Your task to perform on an android device: toggle improve location accuracy Image 0: 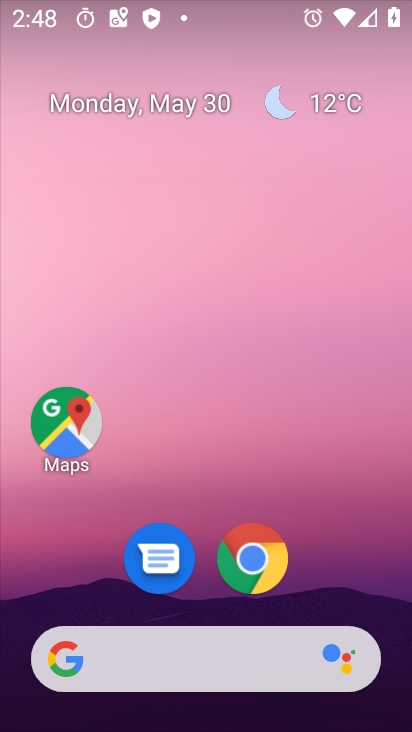
Step 0: drag from (204, 618) to (191, 162)
Your task to perform on an android device: toggle improve location accuracy Image 1: 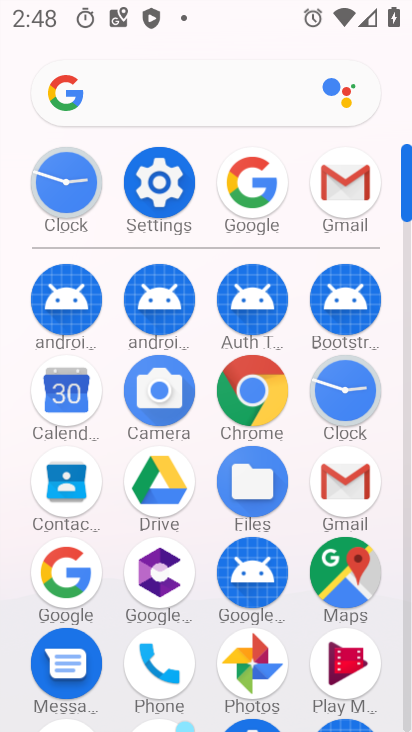
Step 1: click (149, 195)
Your task to perform on an android device: toggle improve location accuracy Image 2: 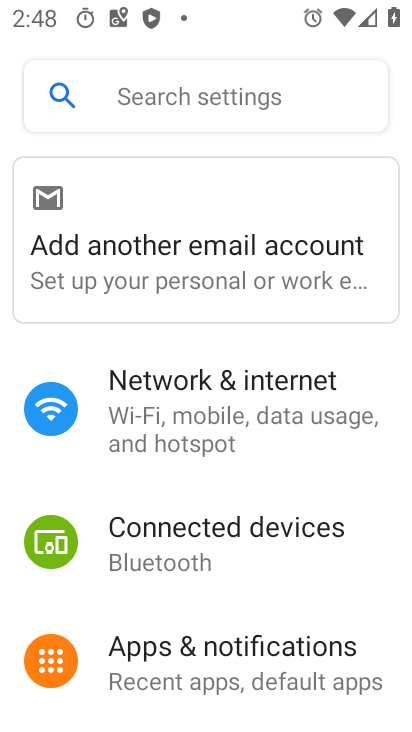
Step 2: drag from (180, 655) to (258, 189)
Your task to perform on an android device: toggle improve location accuracy Image 3: 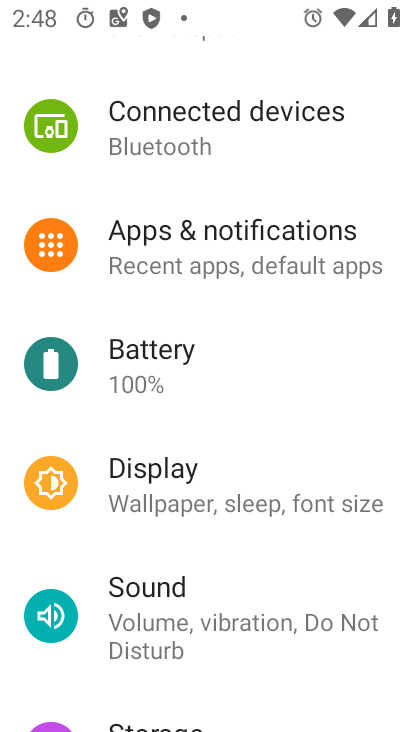
Step 3: drag from (186, 622) to (274, 133)
Your task to perform on an android device: toggle improve location accuracy Image 4: 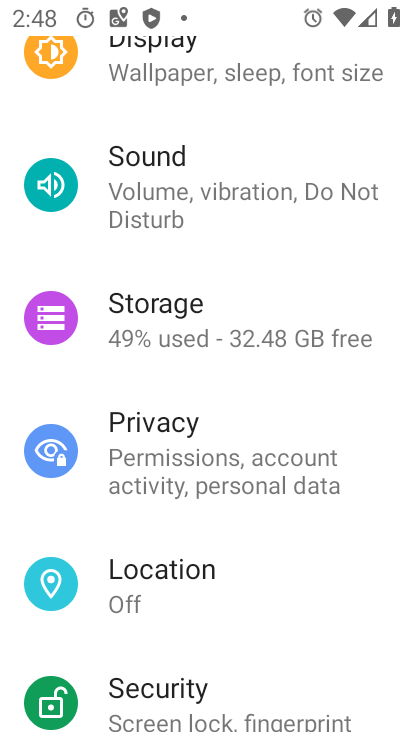
Step 4: click (167, 588)
Your task to perform on an android device: toggle improve location accuracy Image 5: 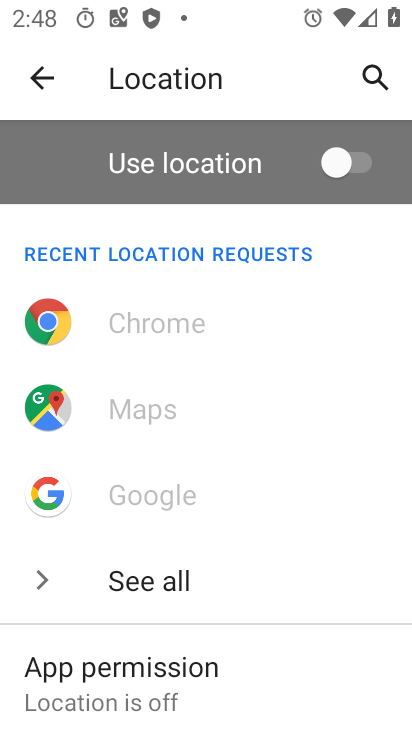
Step 5: drag from (159, 667) to (238, 187)
Your task to perform on an android device: toggle improve location accuracy Image 6: 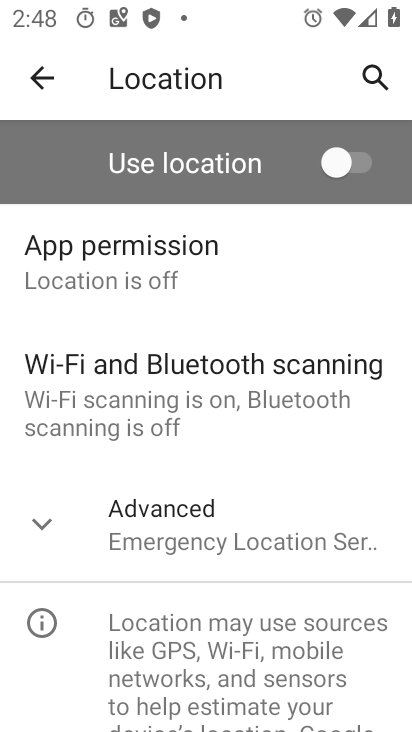
Step 6: click (219, 536)
Your task to perform on an android device: toggle improve location accuracy Image 7: 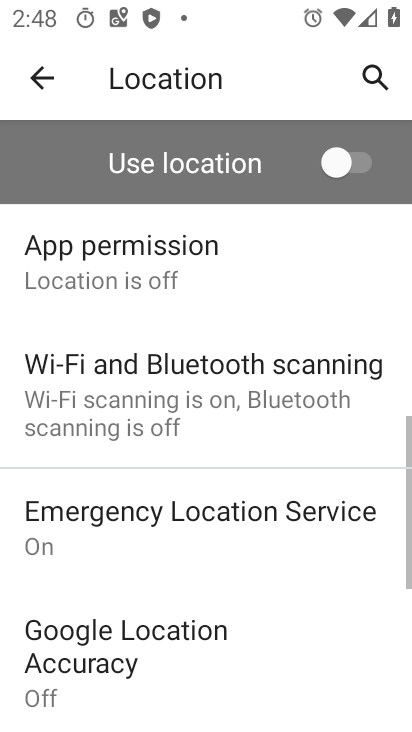
Step 7: click (133, 654)
Your task to perform on an android device: toggle improve location accuracy Image 8: 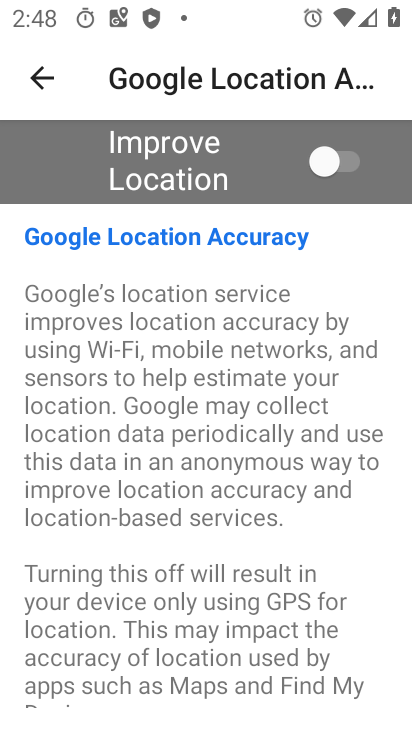
Step 8: click (332, 163)
Your task to perform on an android device: toggle improve location accuracy Image 9: 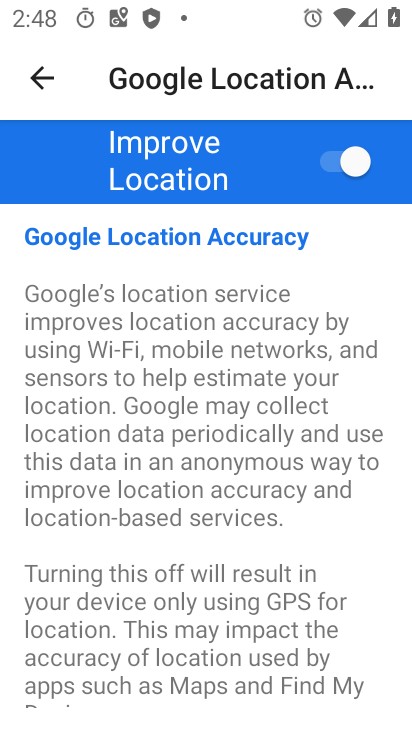
Step 9: task complete